Your task to perform on an android device: Turn off the flashlight Image 0: 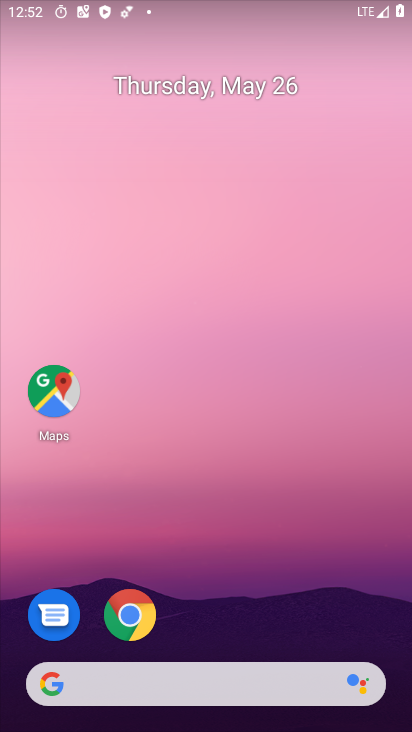
Step 0: click (228, 627)
Your task to perform on an android device: Turn off the flashlight Image 1: 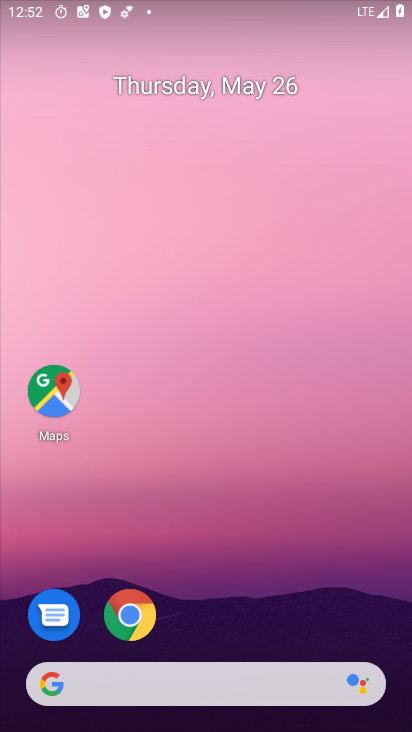
Step 1: drag from (250, 8) to (211, 393)
Your task to perform on an android device: Turn off the flashlight Image 2: 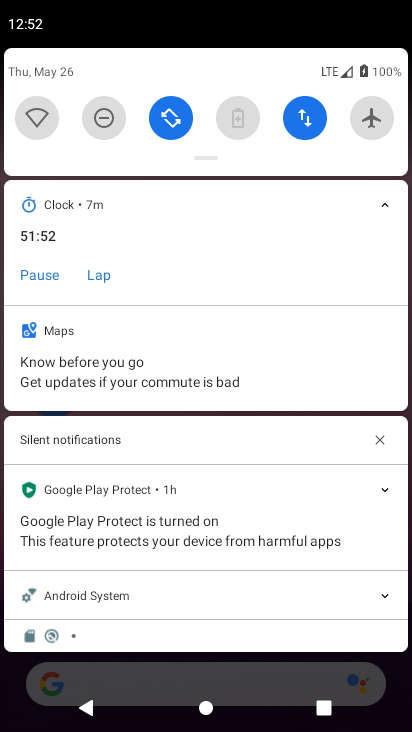
Step 2: drag from (204, 133) to (210, 475)
Your task to perform on an android device: Turn off the flashlight Image 3: 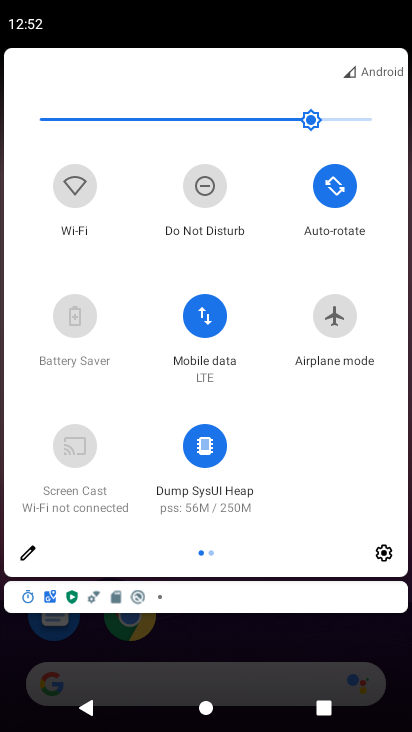
Step 3: drag from (361, 400) to (99, 384)
Your task to perform on an android device: Turn off the flashlight Image 4: 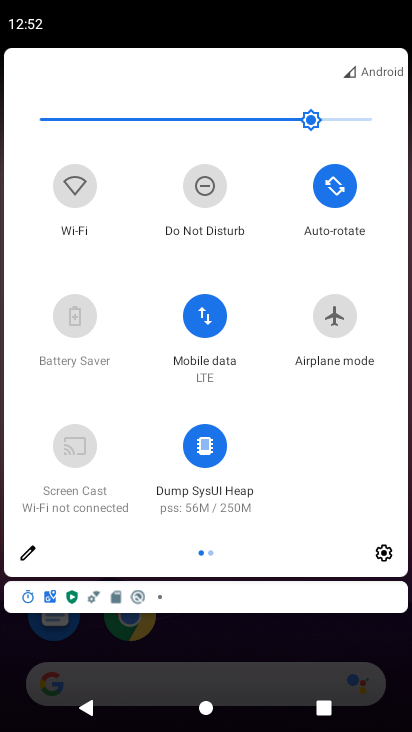
Step 4: click (27, 555)
Your task to perform on an android device: Turn off the flashlight Image 5: 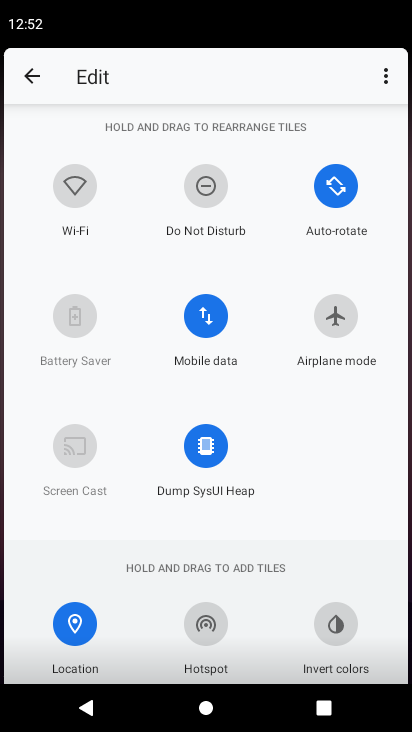
Step 5: task complete